Your task to perform on an android device: turn off javascript in the chrome app Image 0: 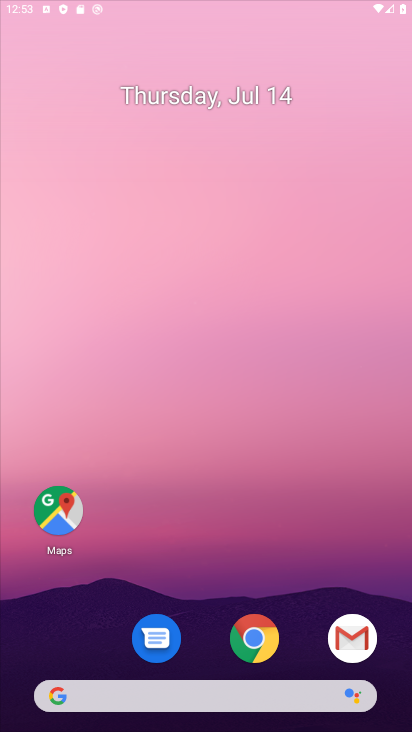
Step 0: press home button
Your task to perform on an android device: turn off javascript in the chrome app Image 1: 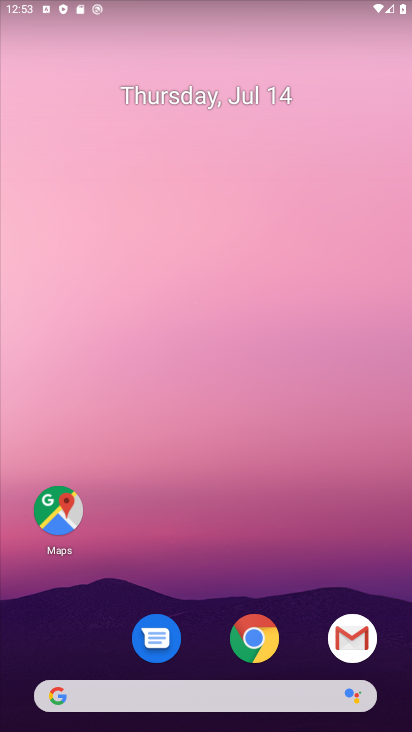
Step 1: click (230, 642)
Your task to perform on an android device: turn off javascript in the chrome app Image 2: 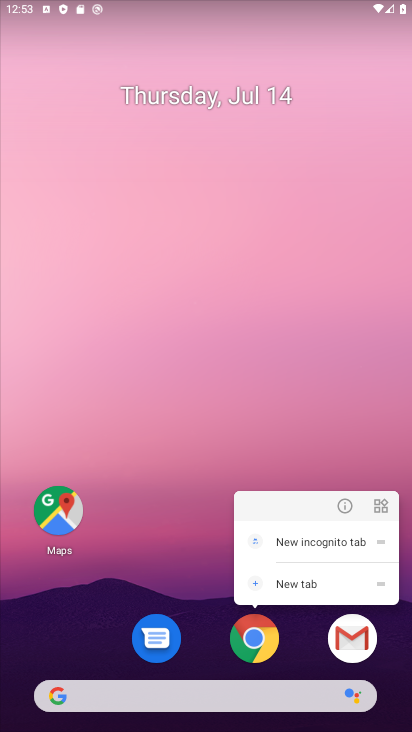
Step 2: click (239, 642)
Your task to perform on an android device: turn off javascript in the chrome app Image 3: 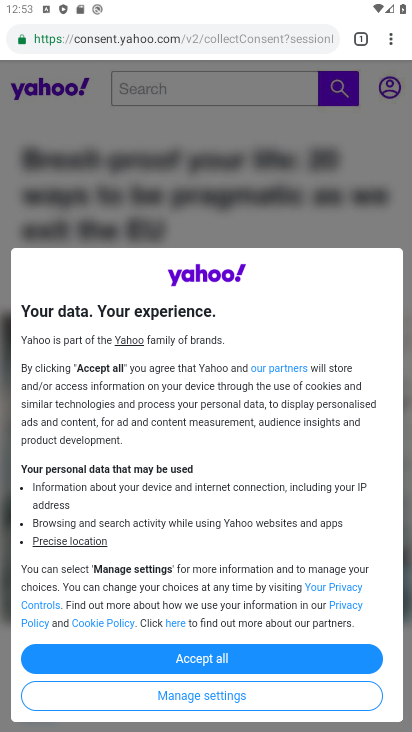
Step 3: click (387, 47)
Your task to perform on an android device: turn off javascript in the chrome app Image 4: 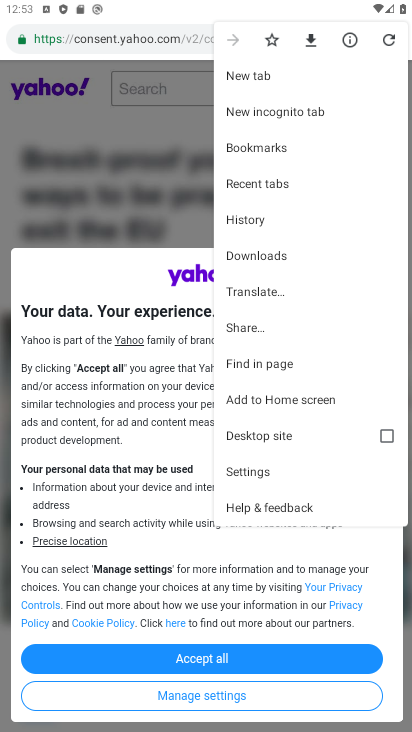
Step 4: click (241, 465)
Your task to perform on an android device: turn off javascript in the chrome app Image 5: 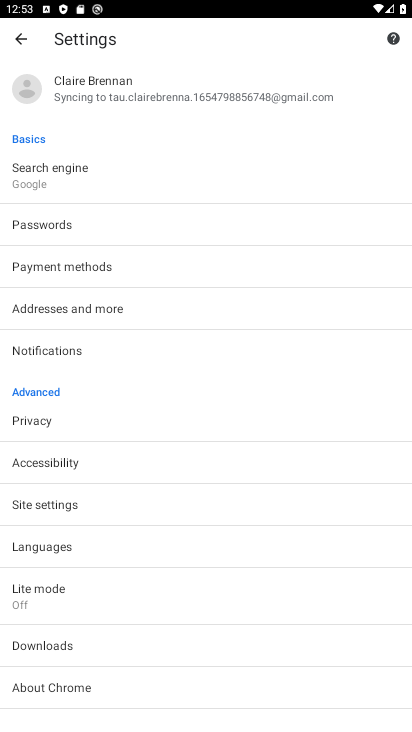
Step 5: click (61, 518)
Your task to perform on an android device: turn off javascript in the chrome app Image 6: 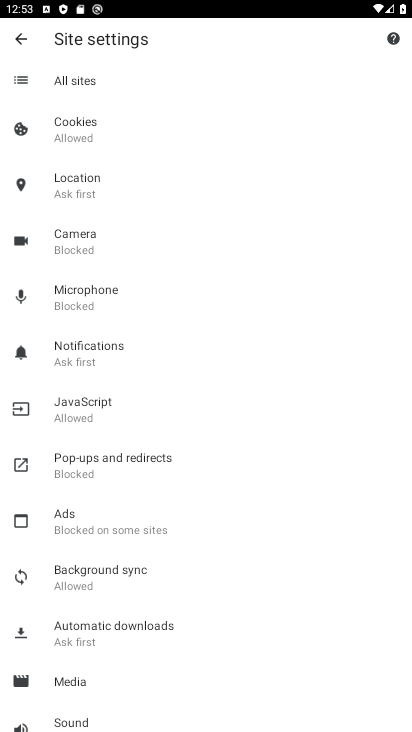
Step 6: click (75, 402)
Your task to perform on an android device: turn off javascript in the chrome app Image 7: 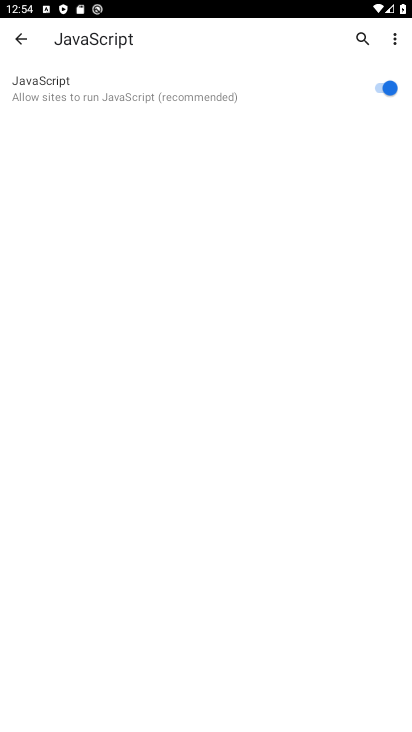
Step 7: click (379, 97)
Your task to perform on an android device: turn off javascript in the chrome app Image 8: 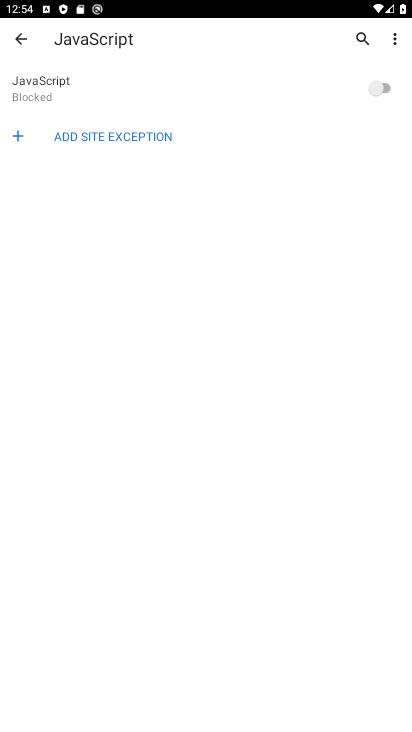
Step 8: task complete